Your task to perform on an android device: open app "Reddit" Image 0: 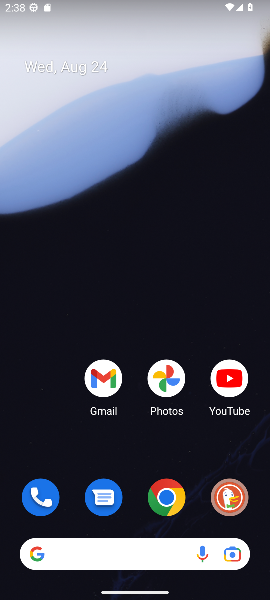
Step 0: drag from (75, 447) to (122, 98)
Your task to perform on an android device: open app "Reddit" Image 1: 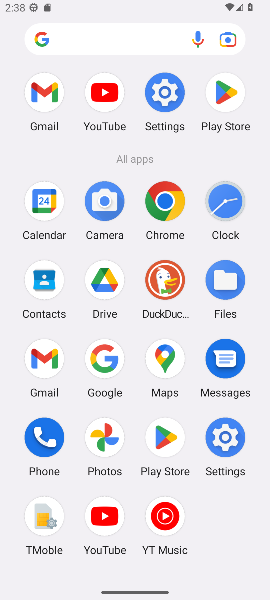
Step 1: click (226, 98)
Your task to perform on an android device: open app "Reddit" Image 2: 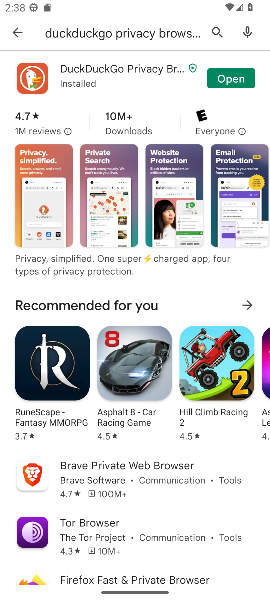
Step 2: press back button
Your task to perform on an android device: open app "Reddit" Image 3: 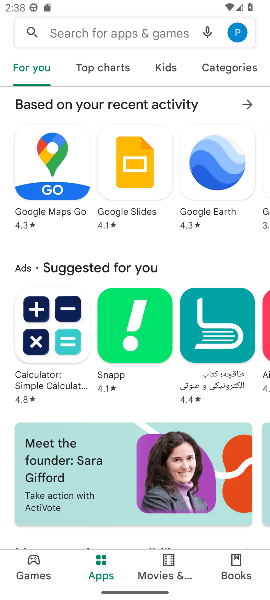
Step 3: click (142, 31)
Your task to perform on an android device: open app "Reddit" Image 4: 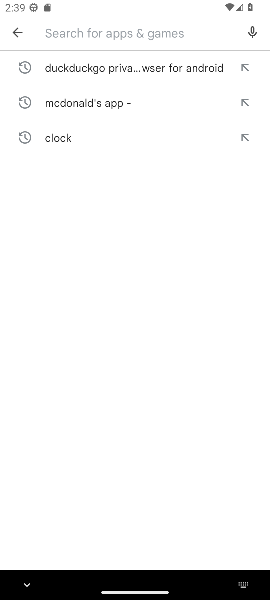
Step 4: type "Reddit"
Your task to perform on an android device: open app "Reddit" Image 5: 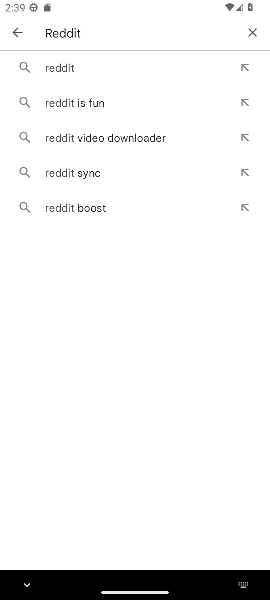
Step 5: click (66, 74)
Your task to perform on an android device: open app "Reddit" Image 6: 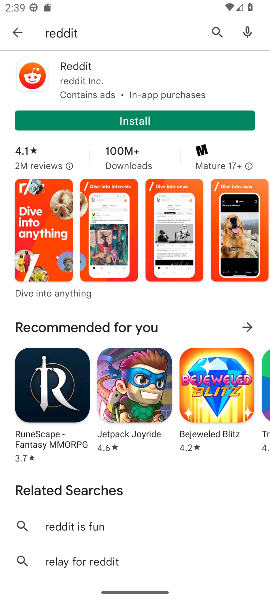
Step 6: task complete